Your task to perform on an android device: open a bookmark in the chrome app Image 0: 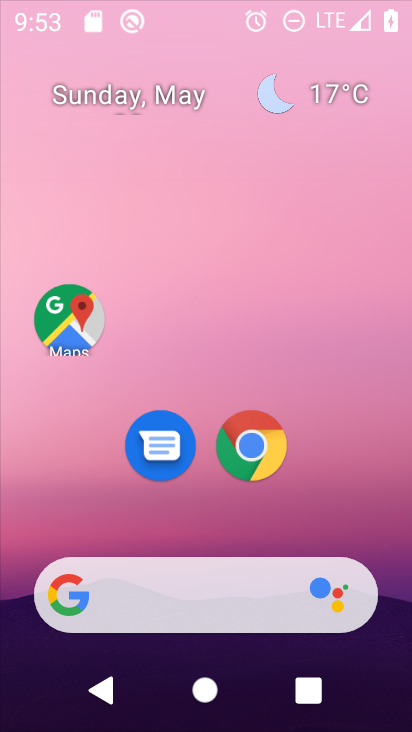
Step 0: drag from (198, 537) to (312, 40)
Your task to perform on an android device: open a bookmark in the chrome app Image 1: 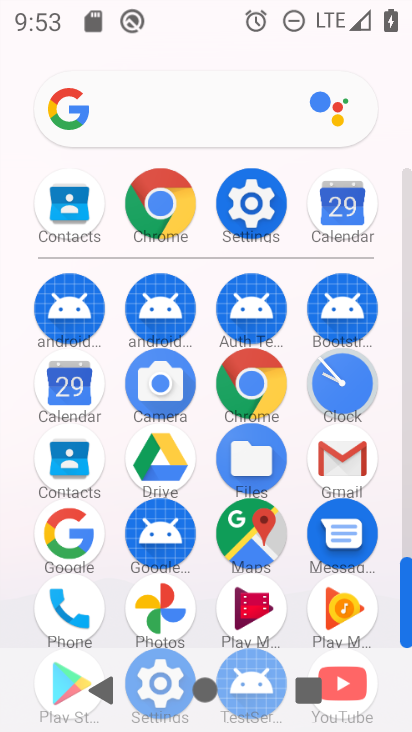
Step 1: click (249, 385)
Your task to perform on an android device: open a bookmark in the chrome app Image 2: 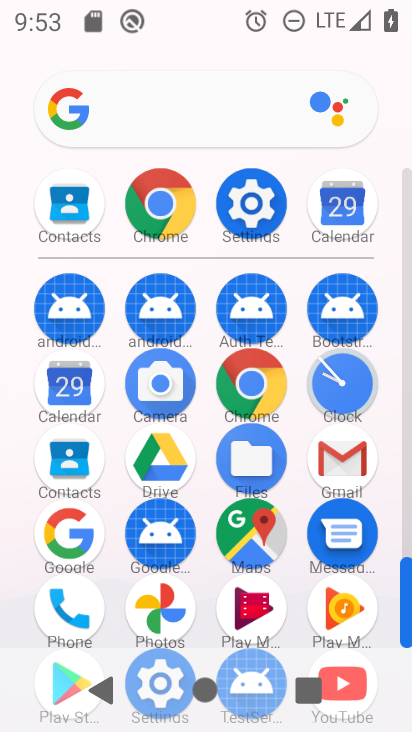
Step 2: click (249, 385)
Your task to perform on an android device: open a bookmark in the chrome app Image 3: 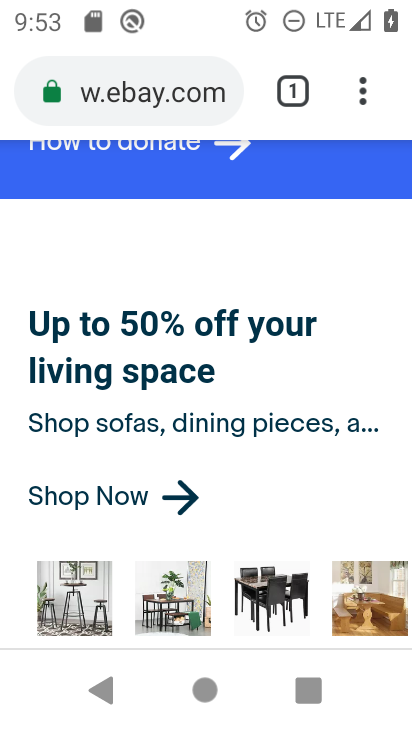
Step 3: task complete